Your task to perform on an android device: turn on priority inbox in the gmail app Image 0: 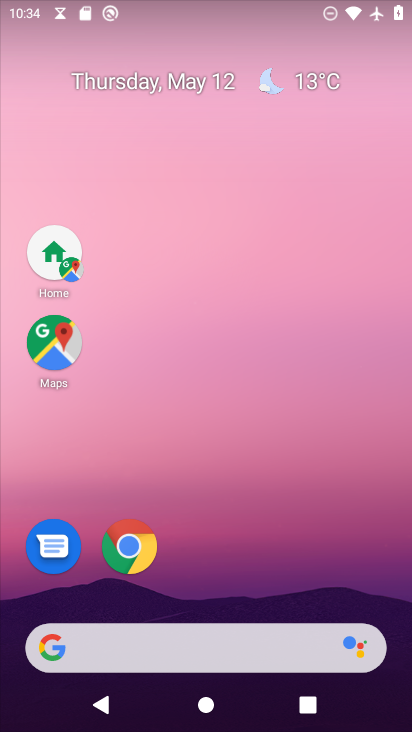
Step 0: press home button
Your task to perform on an android device: turn on priority inbox in the gmail app Image 1: 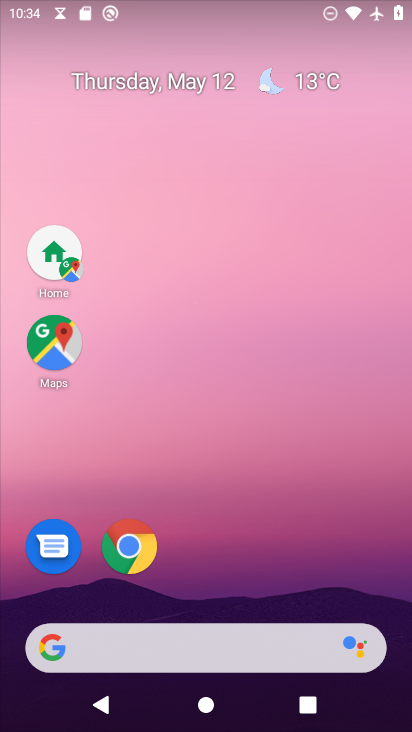
Step 1: drag from (149, 642) to (310, 180)
Your task to perform on an android device: turn on priority inbox in the gmail app Image 2: 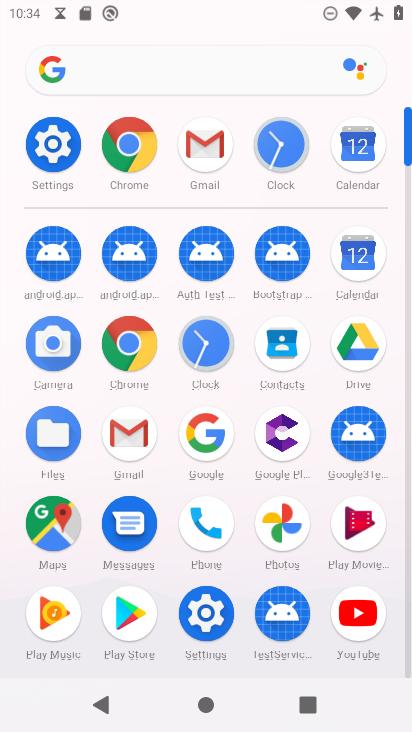
Step 2: click (129, 449)
Your task to perform on an android device: turn on priority inbox in the gmail app Image 3: 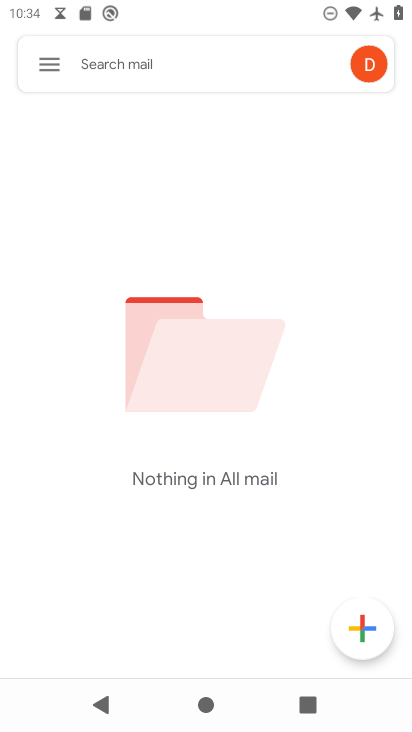
Step 3: click (43, 63)
Your task to perform on an android device: turn on priority inbox in the gmail app Image 4: 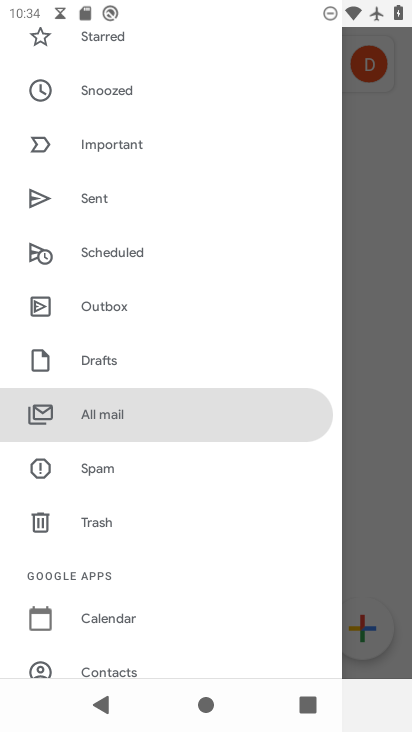
Step 4: drag from (157, 661) to (293, 182)
Your task to perform on an android device: turn on priority inbox in the gmail app Image 5: 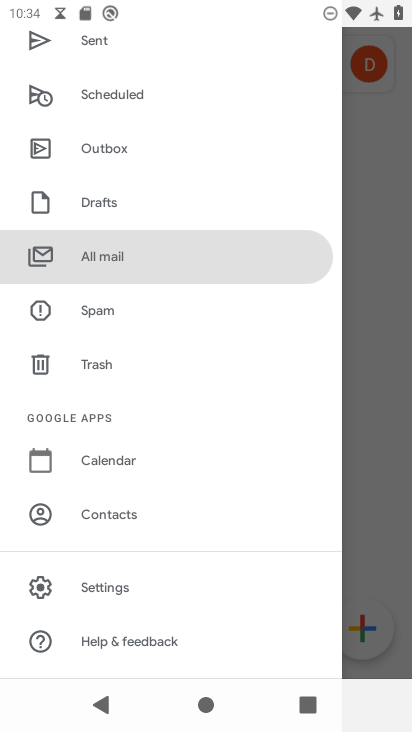
Step 5: click (118, 592)
Your task to perform on an android device: turn on priority inbox in the gmail app Image 6: 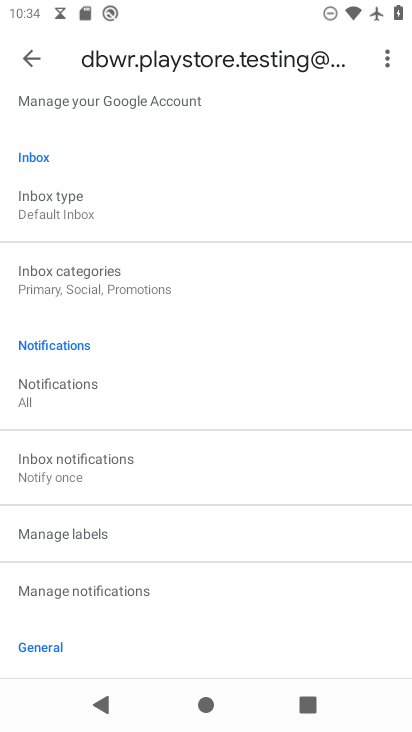
Step 6: click (75, 211)
Your task to perform on an android device: turn on priority inbox in the gmail app Image 7: 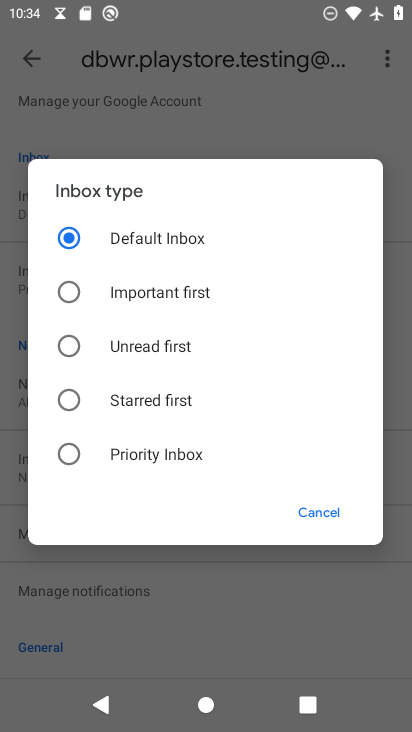
Step 7: click (65, 460)
Your task to perform on an android device: turn on priority inbox in the gmail app Image 8: 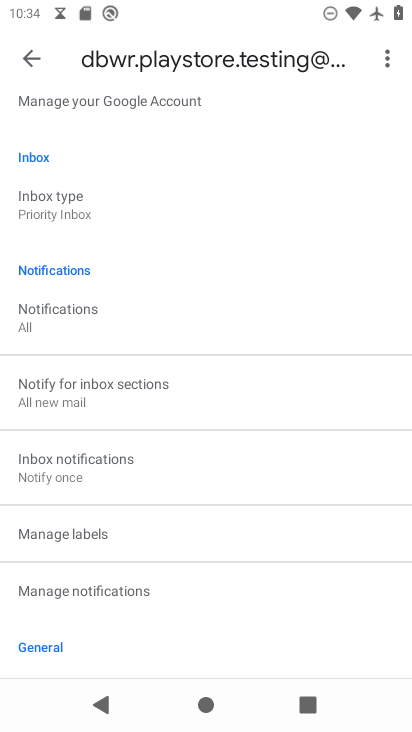
Step 8: task complete